Your task to perform on an android device: Open Yahoo.com Image 0: 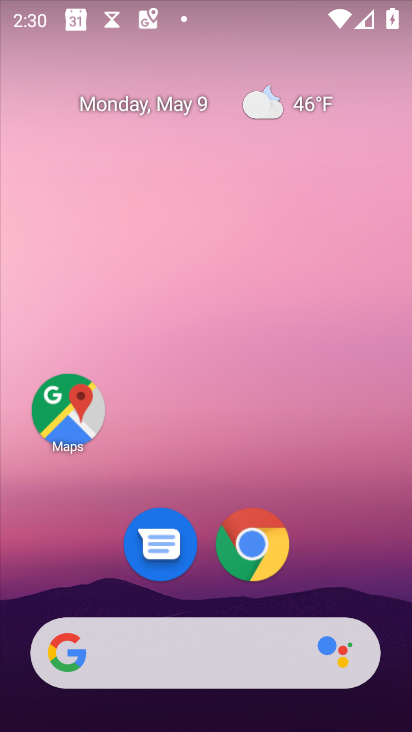
Step 0: click (257, 548)
Your task to perform on an android device: Open Yahoo.com Image 1: 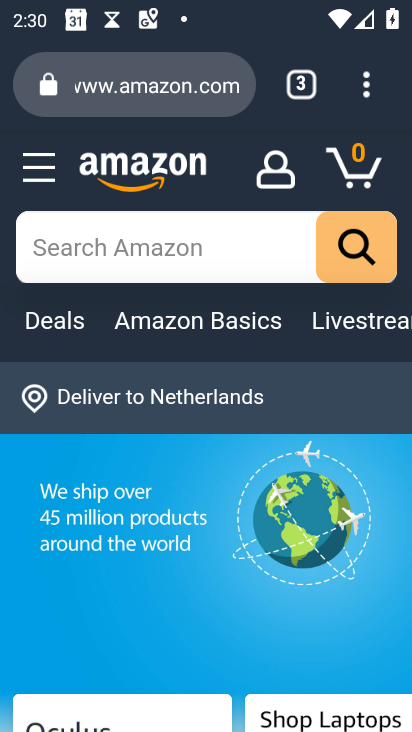
Step 1: click (299, 86)
Your task to perform on an android device: Open Yahoo.com Image 2: 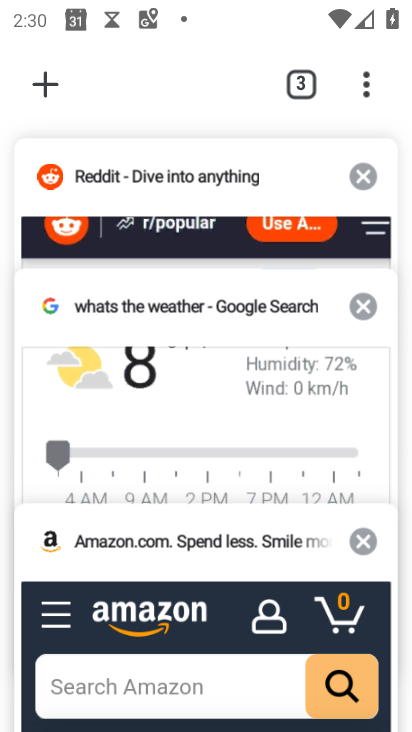
Step 2: click (47, 84)
Your task to perform on an android device: Open Yahoo.com Image 3: 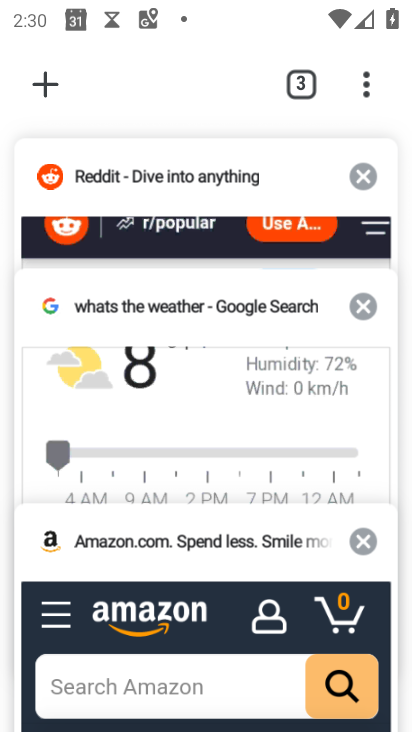
Step 3: click (54, 84)
Your task to perform on an android device: Open Yahoo.com Image 4: 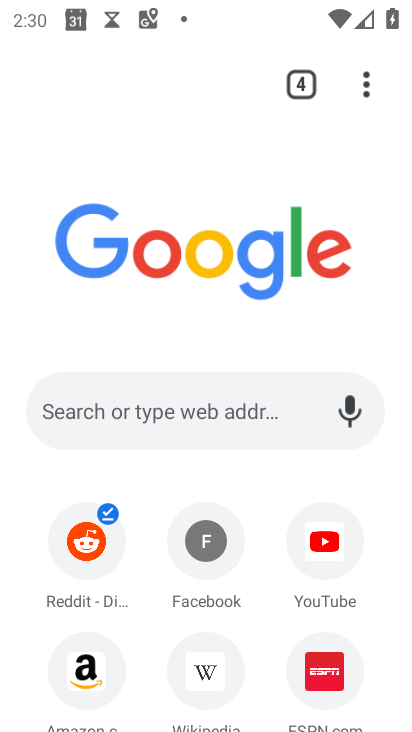
Step 4: click (164, 419)
Your task to perform on an android device: Open Yahoo.com Image 5: 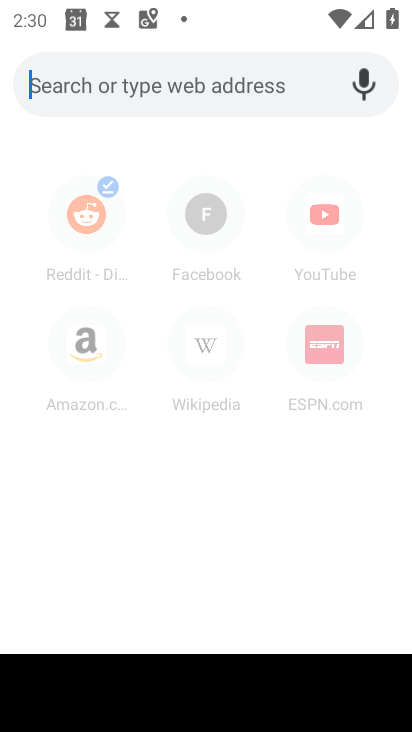
Step 5: type "yahoo.com"
Your task to perform on an android device: Open Yahoo.com Image 6: 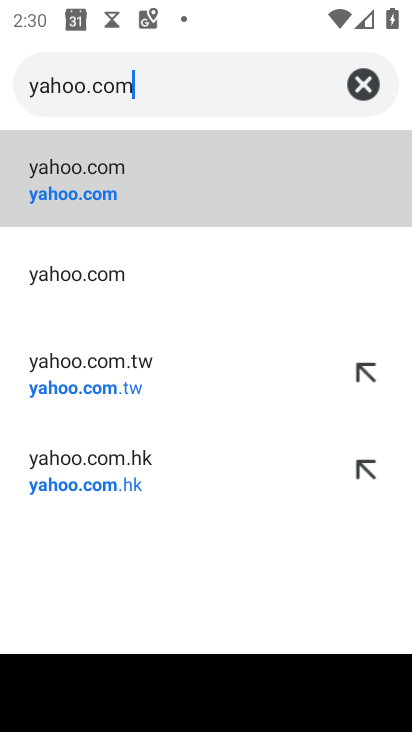
Step 6: click (71, 173)
Your task to perform on an android device: Open Yahoo.com Image 7: 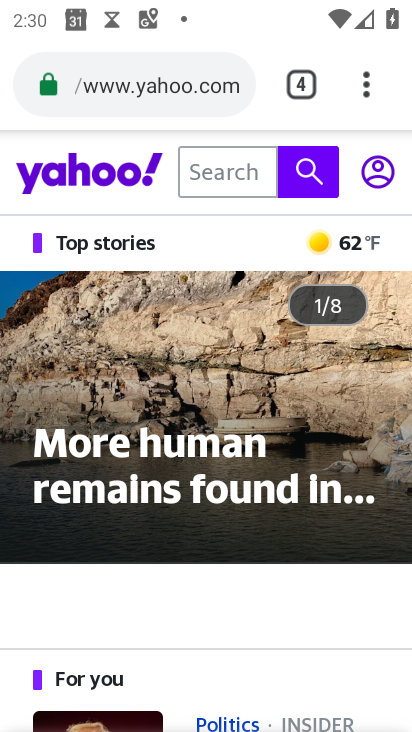
Step 7: task complete